Your task to perform on an android device: clear history in the chrome app Image 0: 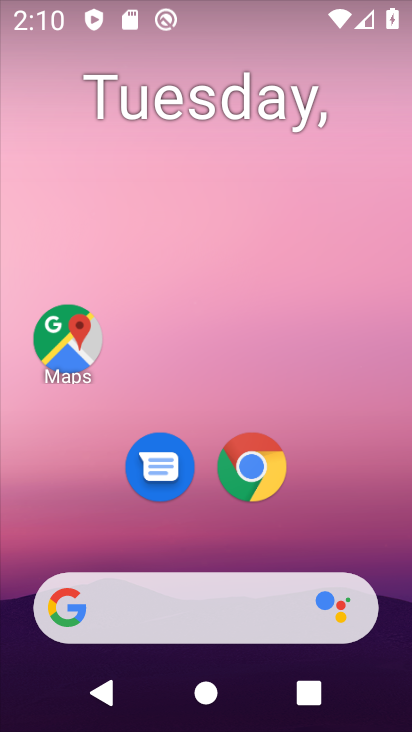
Step 0: drag from (381, 535) to (378, 144)
Your task to perform on an android device: clear history in the chrome app Image 1: 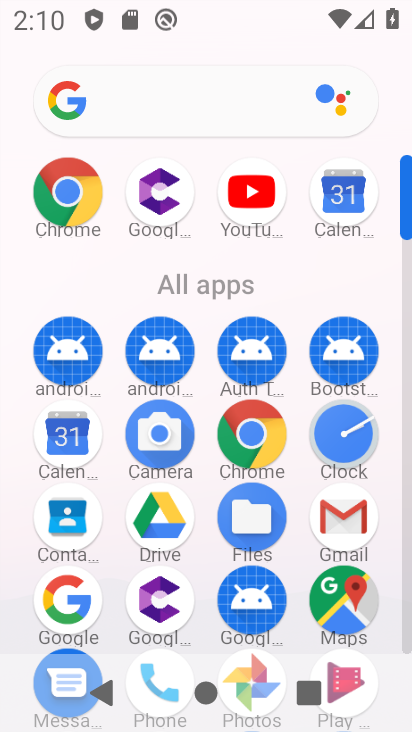
Step 1: click (253, 435)
Your task to perform on an android device: clear history in the chrome app Image 2: 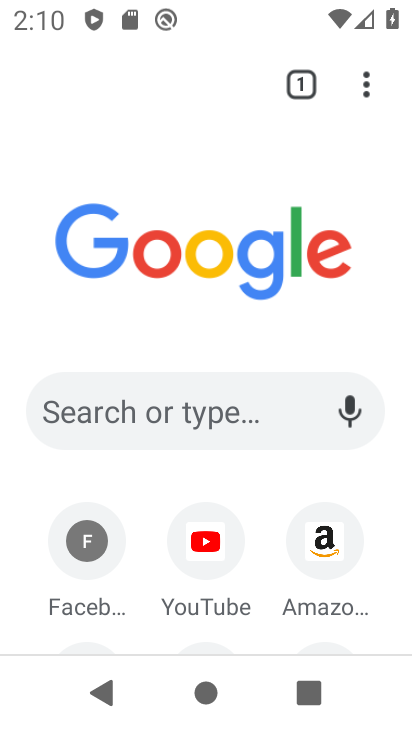
Step 2: click (367, 92)
Your task to perform on an android device: clear history in the chrome app Image 3: 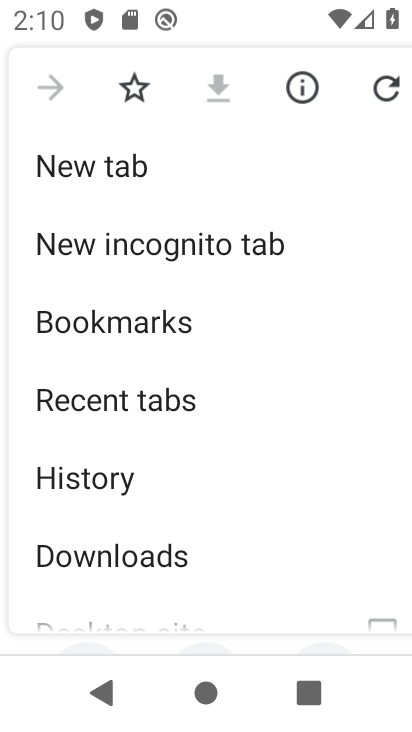
Step 3: drag from (355, 421) to (355, 314)
Your task to perform on an android device: clear history in the chrome app Image 4: 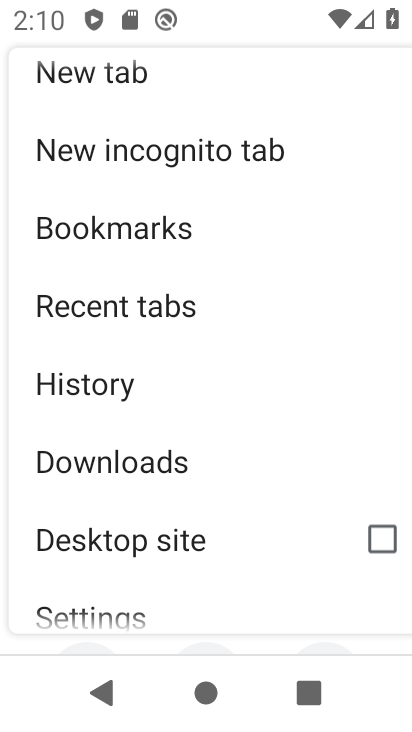
Step 4: drag from (333, 453) to (333, 308)
Your task to perform on an android device: clear history in the chrome app Image 5: 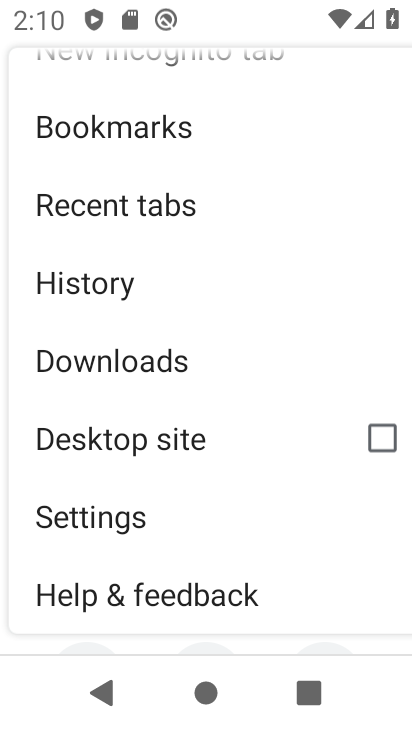
Step 5: drag from (289, 503) to (302, 352)
Your task to perform on an android device: clear history in the chrome app Image 6: 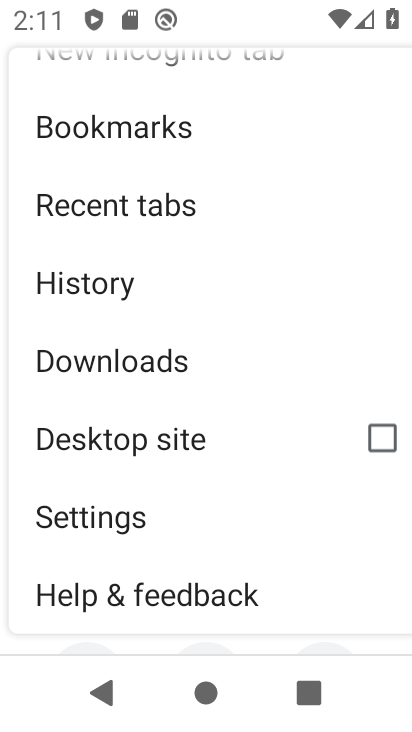
Step 6: click (150, 292)
Your task to perform on an android device: clear history in the chrome app Image 7: 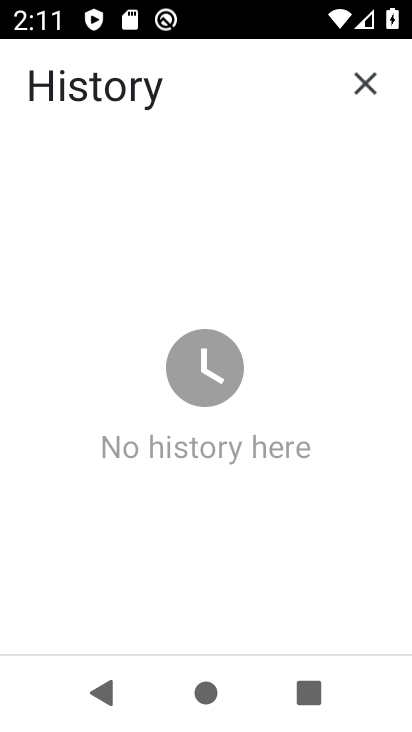
Step 7: task complete